Your task to perform on an android device: Open privacy settings Image 0: 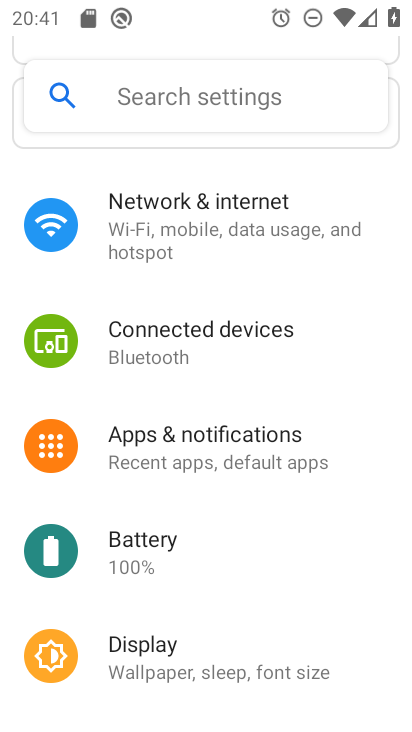
Step 0: press home button
Your task to perform on an android device: Open privacy settings Image 1: 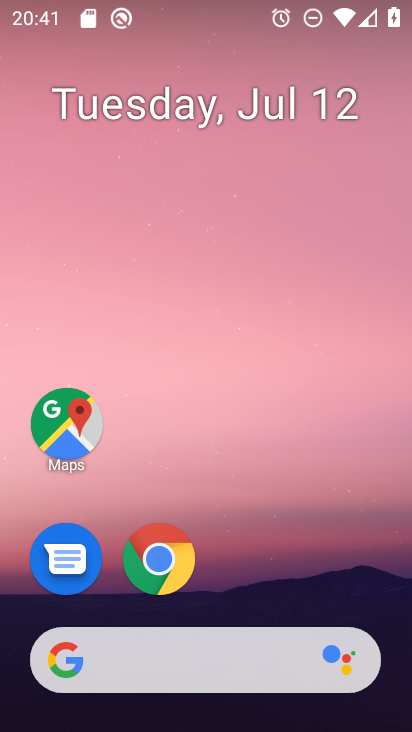
Step 1: drag from (365, 601) to (370, 102)
Your task to perform on an android device: Open privacy settings Image 2: 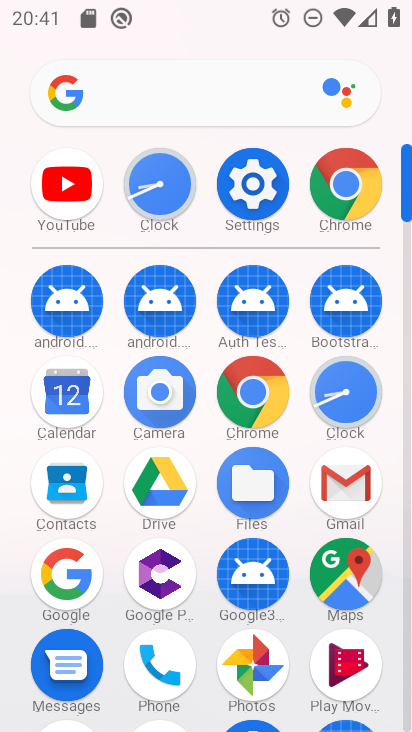
Step 2: click (257, 194)
Your task to perform on an android device: Open privacy settings Image 3: 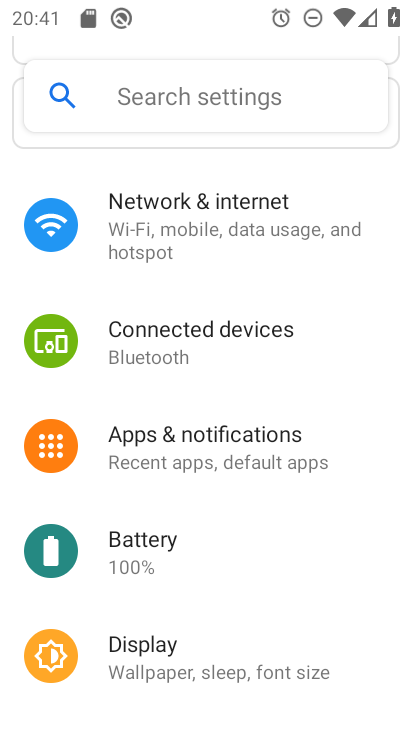
Step 3: drag from (368, 443) to (365, 334)
Your task to perform on an android device: Open privacy settings Image 4: 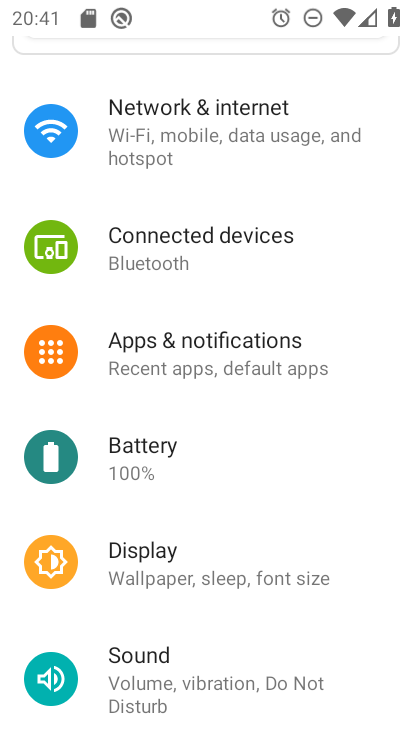
Step 4: drag from (350, 491) to (348, 241)
Your task to perform on an android device: Open privacy settings Image 5: 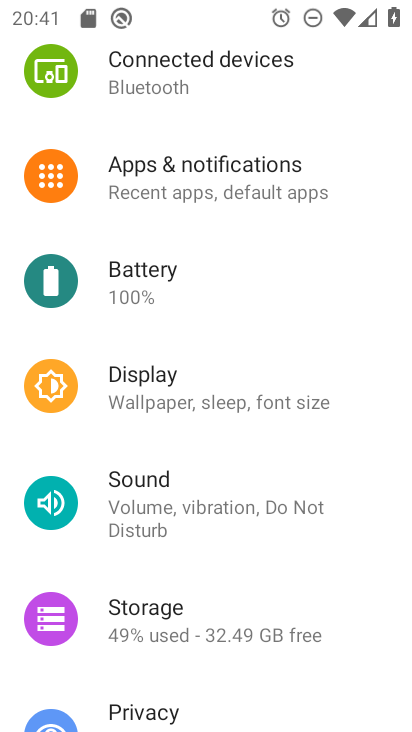
Step 5: drag from (361, 504) to (358, 328)
Your task to perform on an android device: Open privacy settings Image 6: 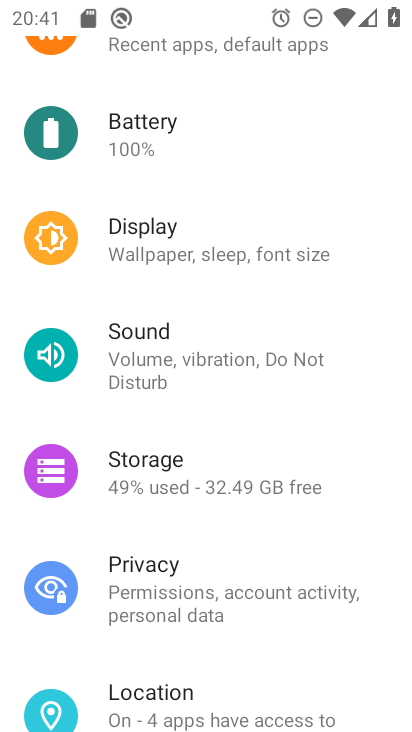
Step 6: drag from (329, 509) to (330, 400)
Your task to perform on an android device: Open privacy settings Image 7: 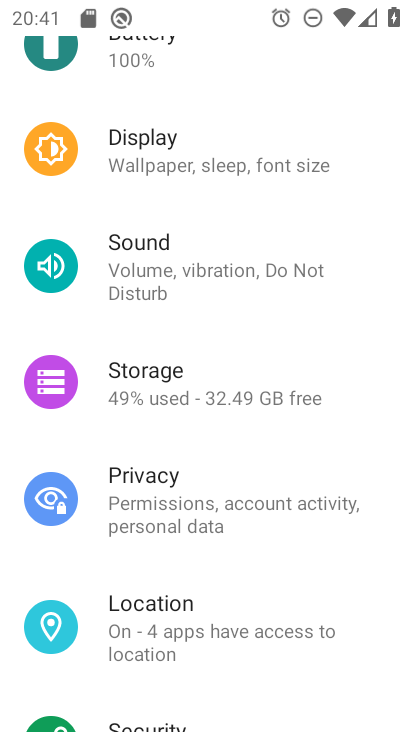
Step 7: drag from (363, 591) to (365, 421)
Your task to perform on an android device: Open privacy settings Image 8: 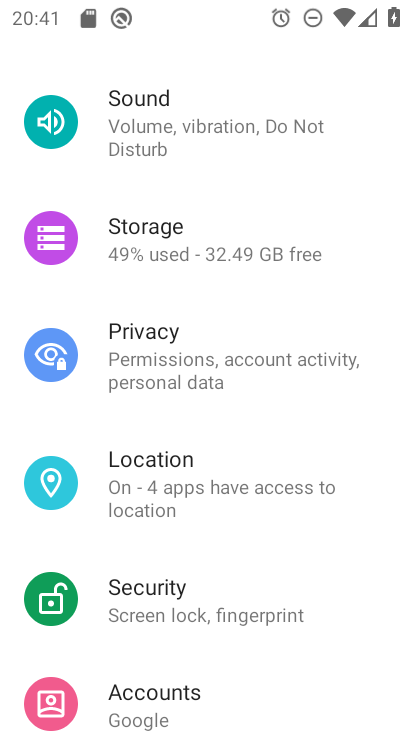
Step 8: drag from (352, 544) to (351, 380)
Your task to perform on an android device: Open privacy settings Image 9: 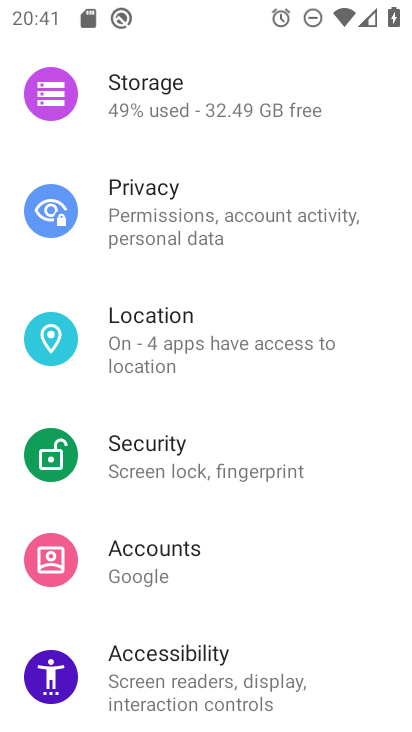
Step 9: drag from (348, 555) to (348, 439)
Your task to perform on an android device: Open privacy settings Image 10: 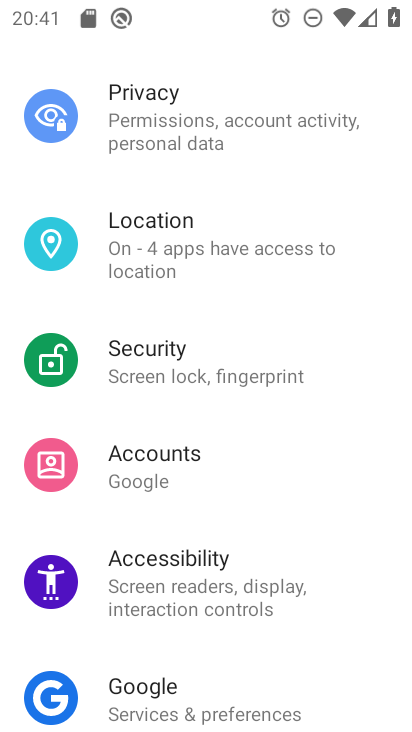
Step 10: drag from (360, 590) to (363, 424)
Your task to perform on an android device: Open privacy settings Image 11: 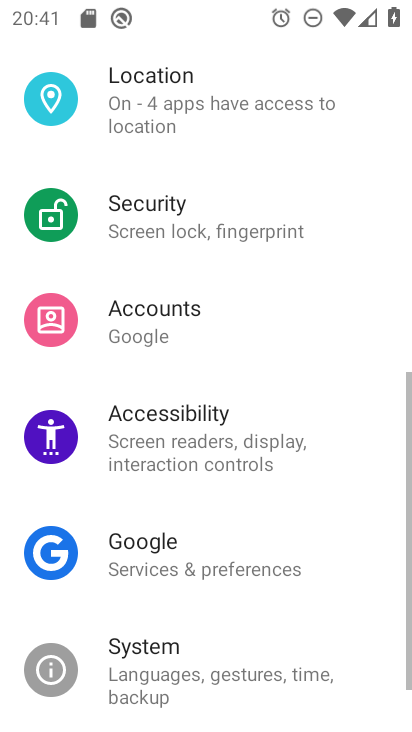
Step 11: drag from (363, 346) to (353, 497)
Your task to perform on an android device: Open privacy settings Image 12: 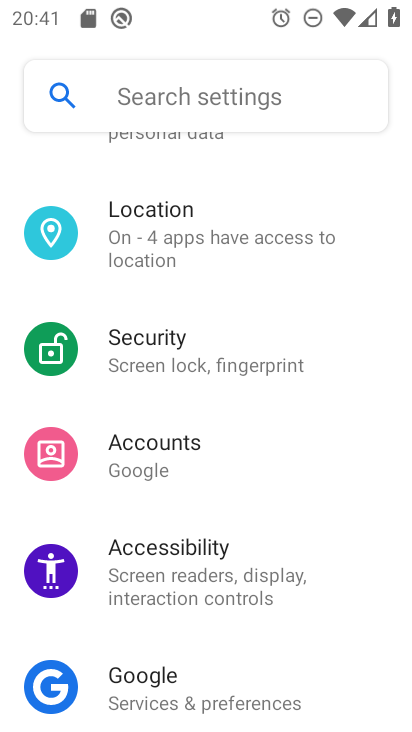
Step 12: drag from (351, 283) to (351, 421)
Your task to perform on an android device: Open privacy settings Image 13: 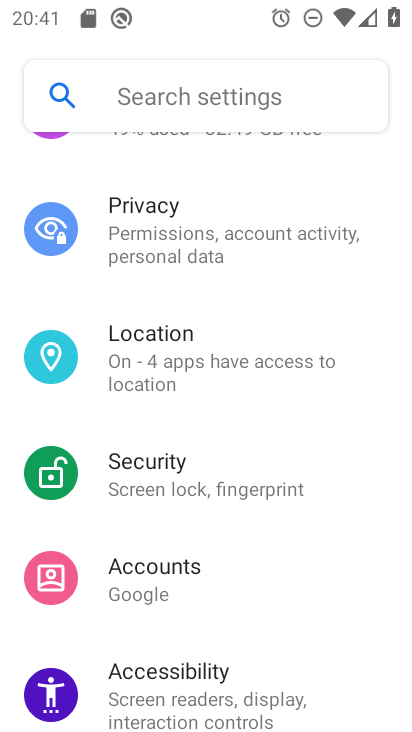
Step 13: click (331, 233)
Your task to perform on an android device: Open privacy settings Image 14: 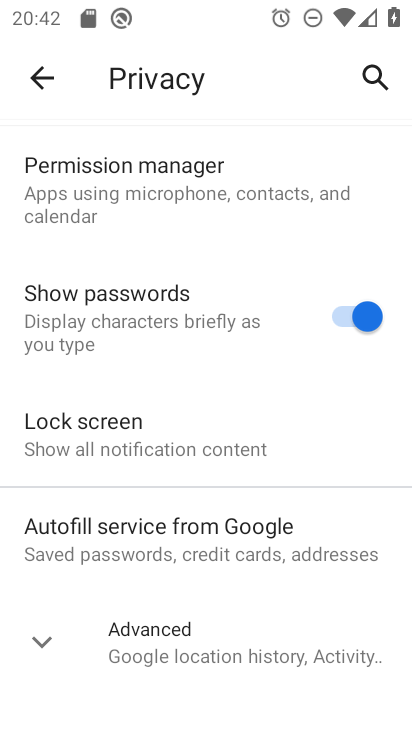
Step 14: task complete